Your task to perform on an android device: Turn off the flashlight Image 0: 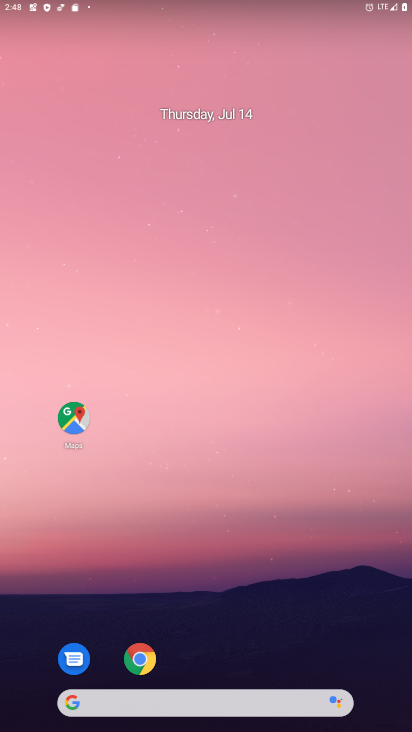
Step 0: press home button
Your task to perform on an android device: Turn off the flashlight Image 1: 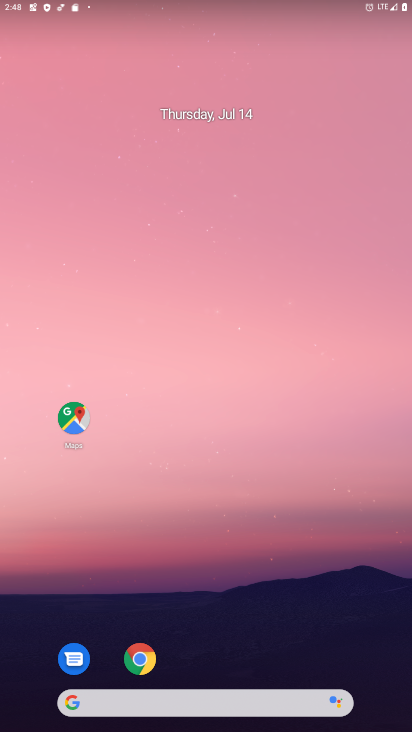
Step 1: task complete